Your task to perform on an android device: open app "Venmo" (install if not already installed) Image 0: 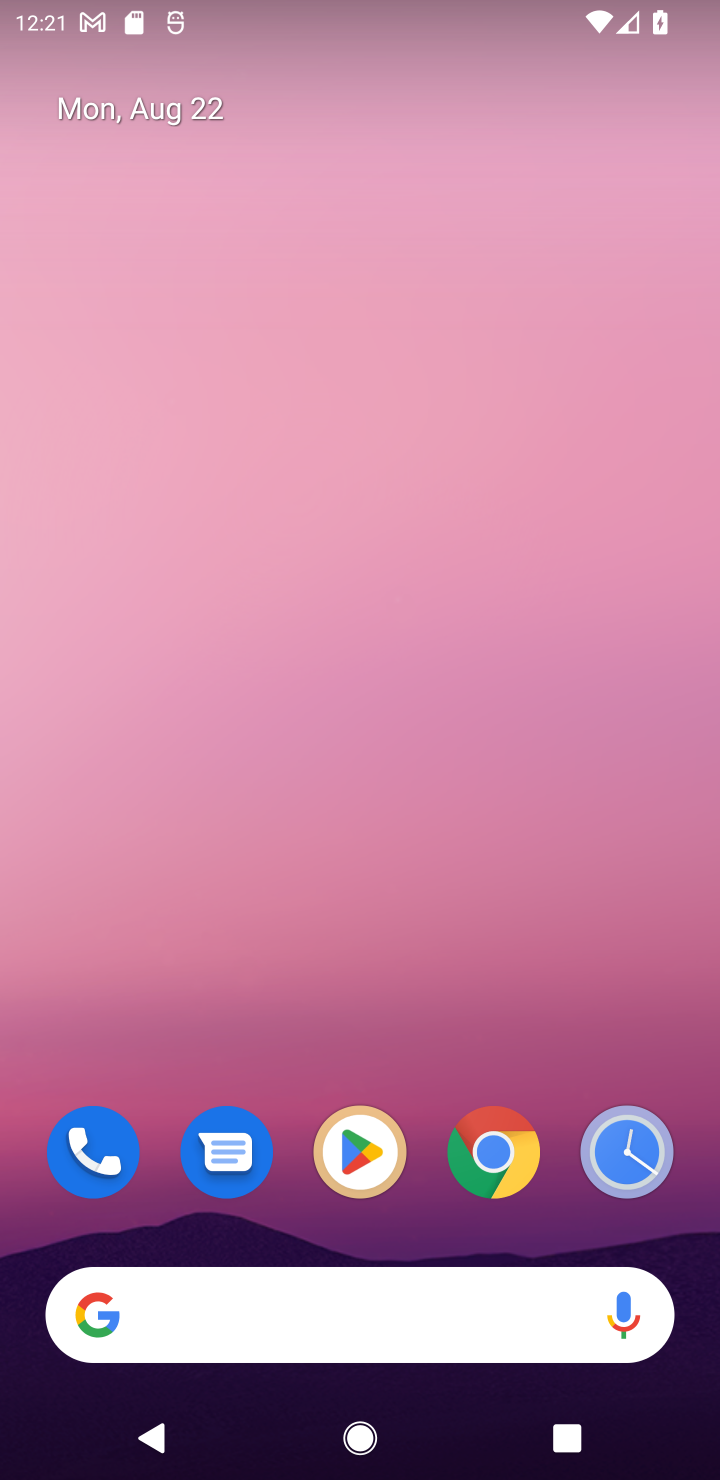
Step 0: click (369, 1143)
Your task to perform on an android device: open app "Venmo" (install if not already installed) Image 1: 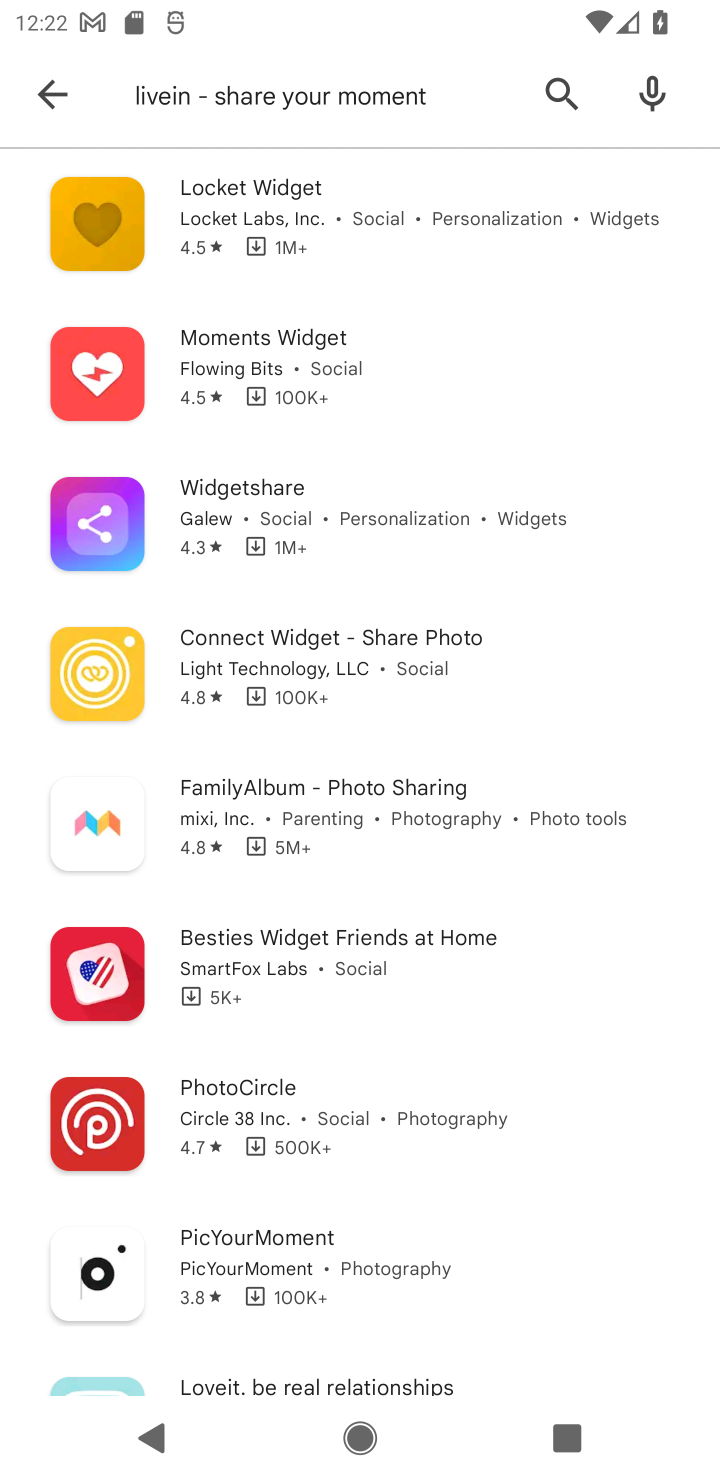
Step 1: drag from (326, 1103) to (46, 93)
Your task to perform on an android device: open app "Venmo" (install if not already installed) Image 2: 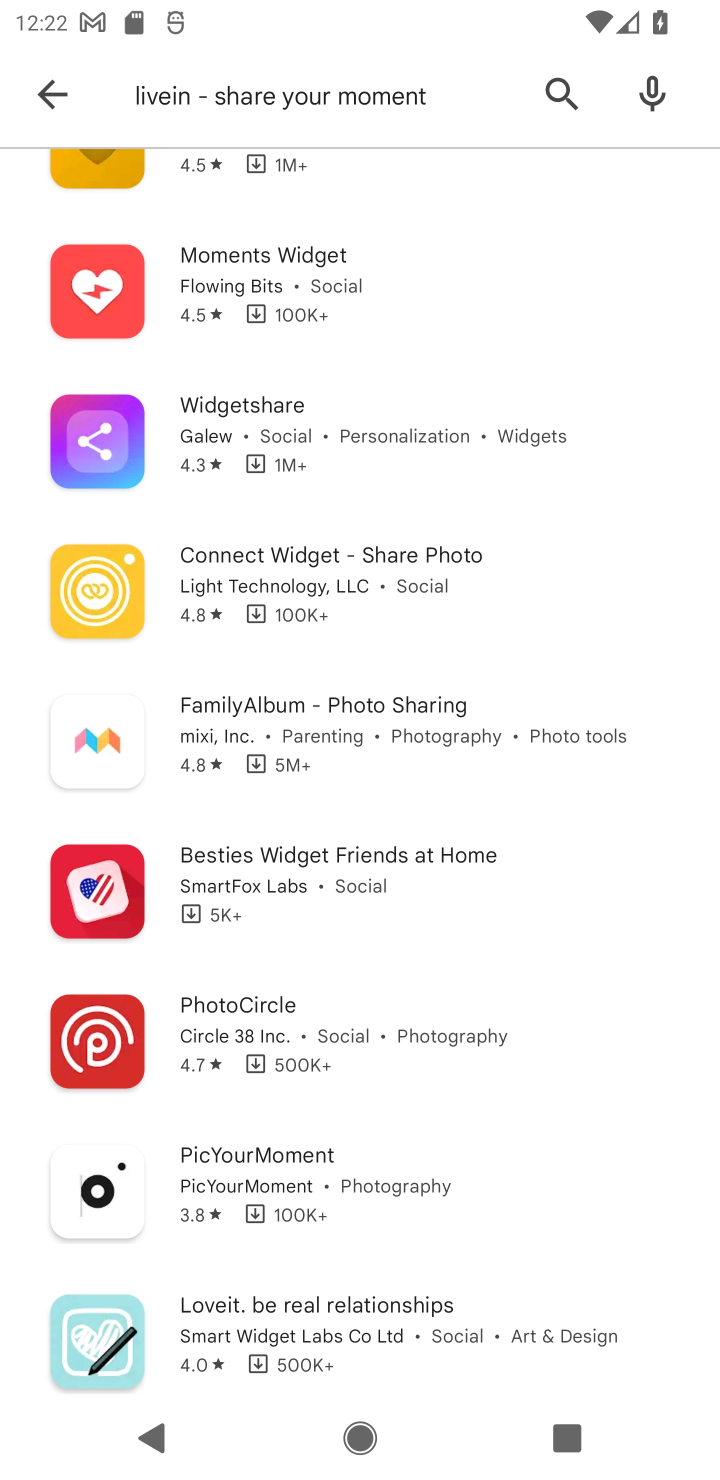
Step 2: click (46, 93)
Your task to perform on an android device: open app "Venmo" (install if not already installed) Image 3: 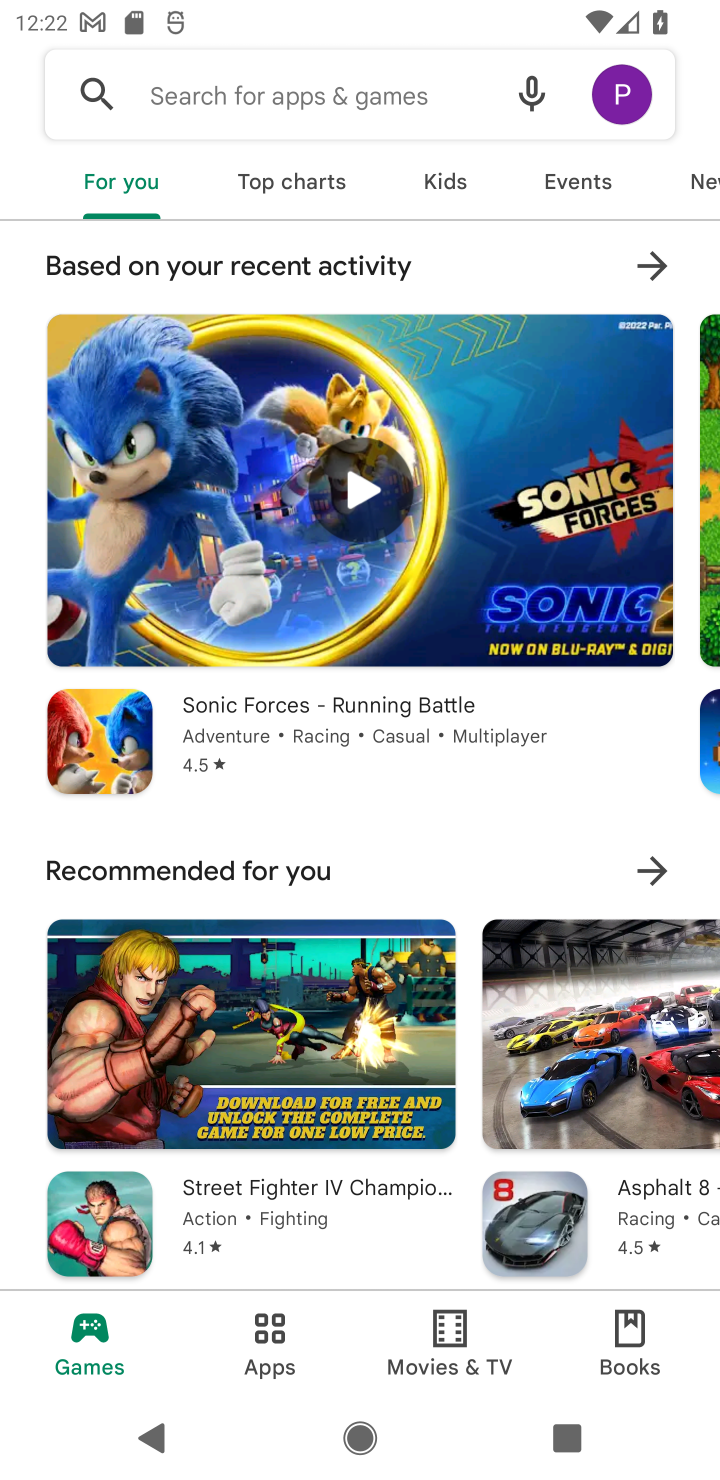
Step 3: click (243, 100)
Your task to perform on an android device: open app "Venmo" (install if not already installed) Image 4: 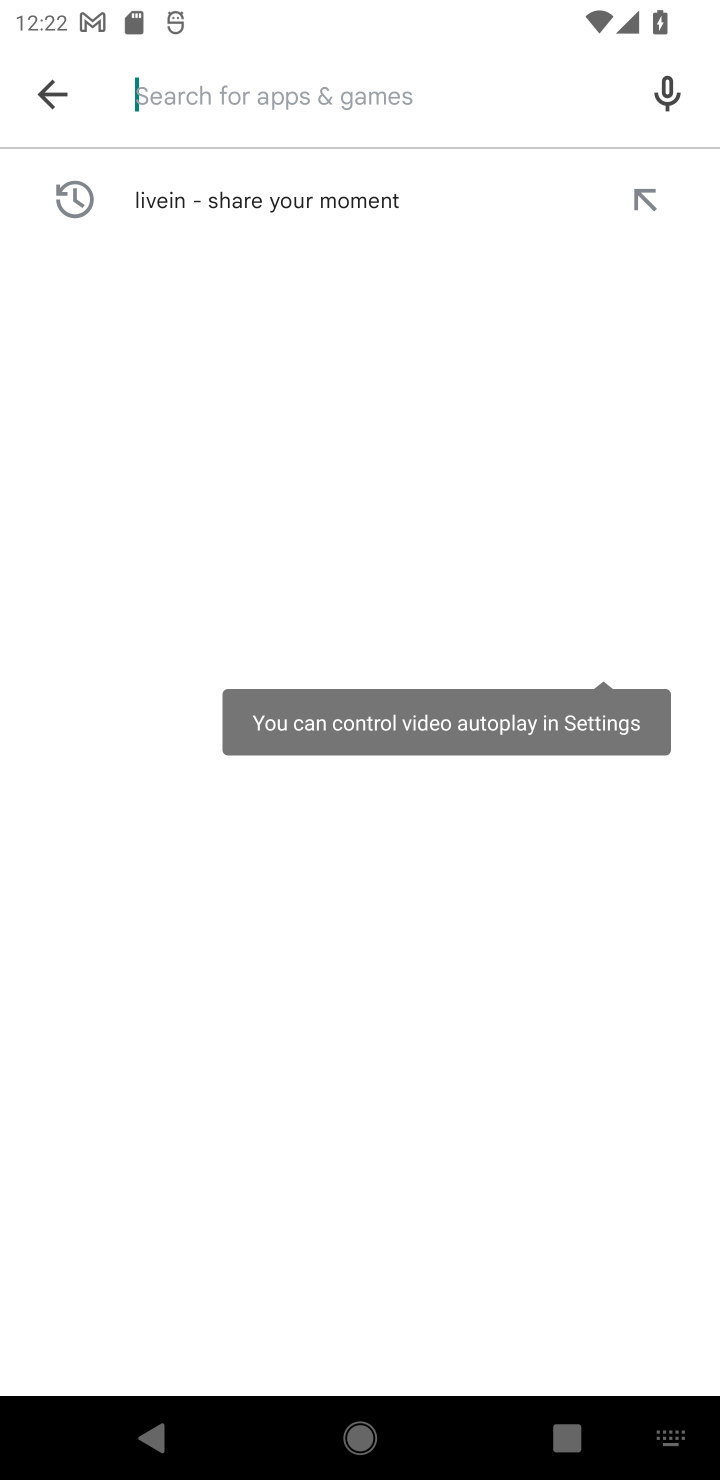
Step 4: type "Venmo"
Your task to perform on an android device: open app "Venmo" (install if not already installed) Image 5: 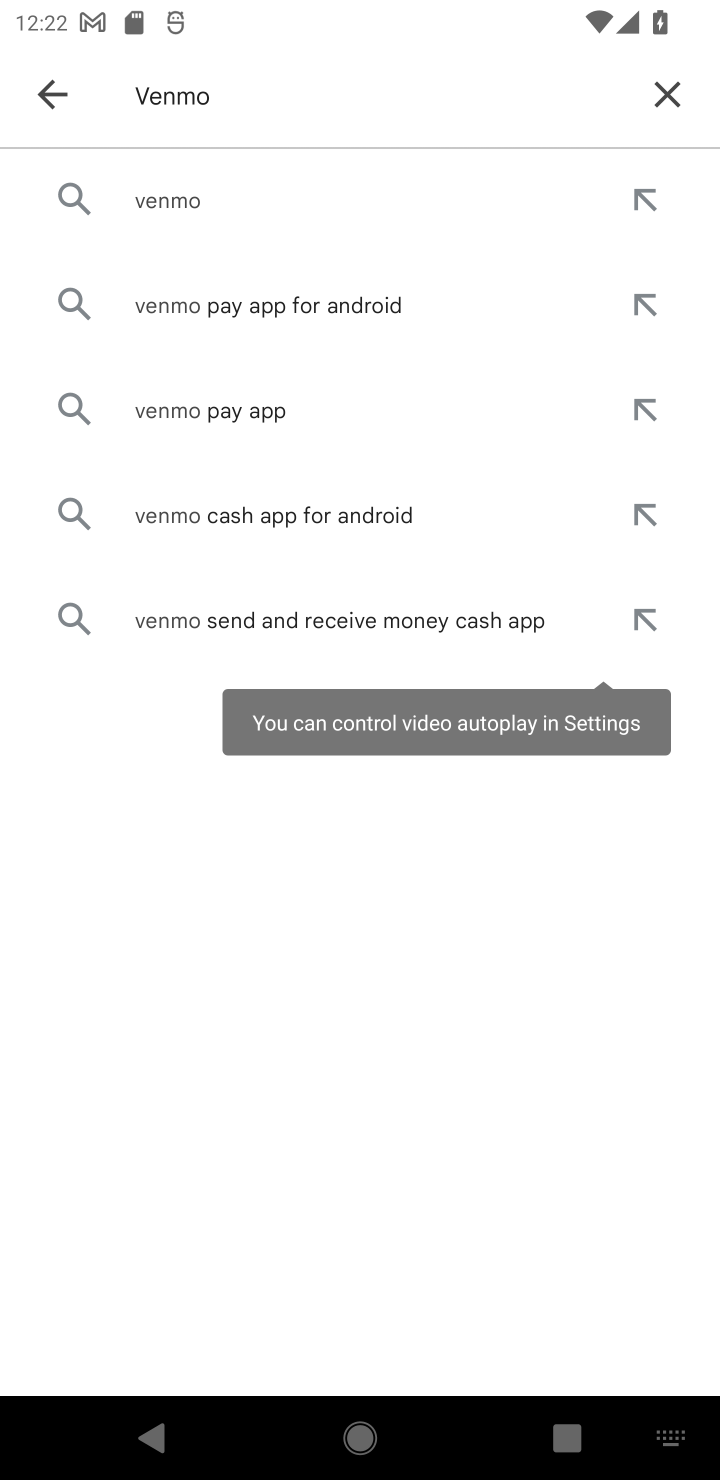
Step 5: click (157, 205)
Your task to perform on an android device: open app "Venmo" (install if not already installed) Image 6: 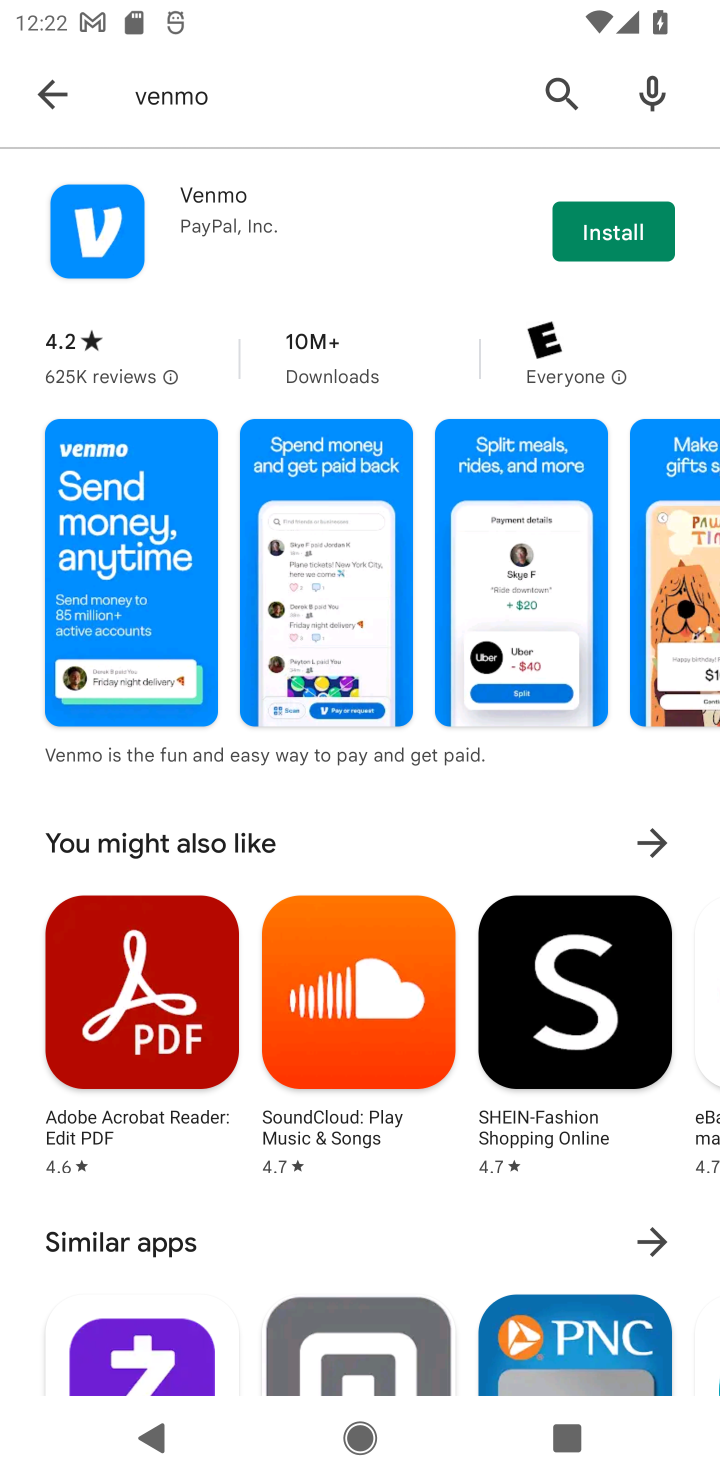
Step 6: click (613, 223)
Your task to perform on an android device: open app "Venmo" (install if not already installed) Image 7: 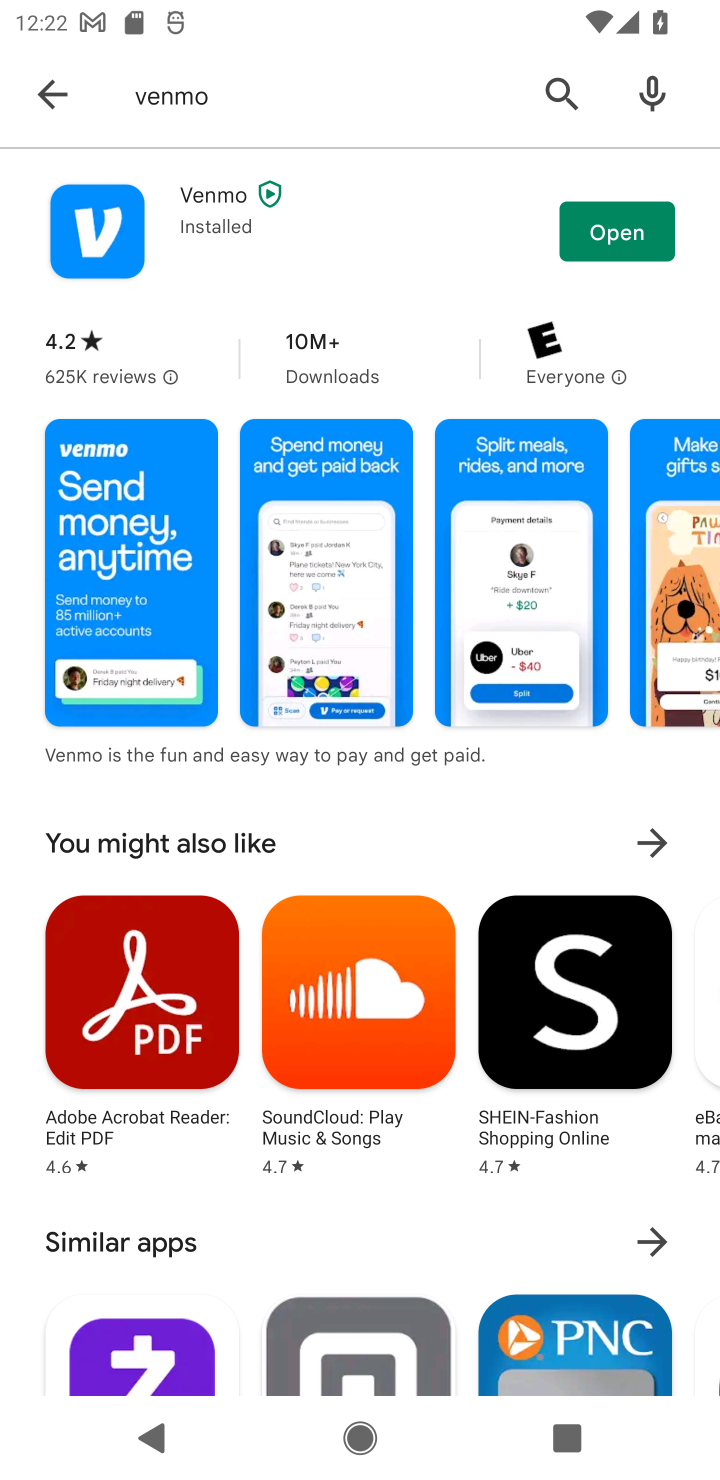
Step 7: click (613, 223)
Your task to perform on an android device: open app "Venmo" (install if not already installed) Image 8: 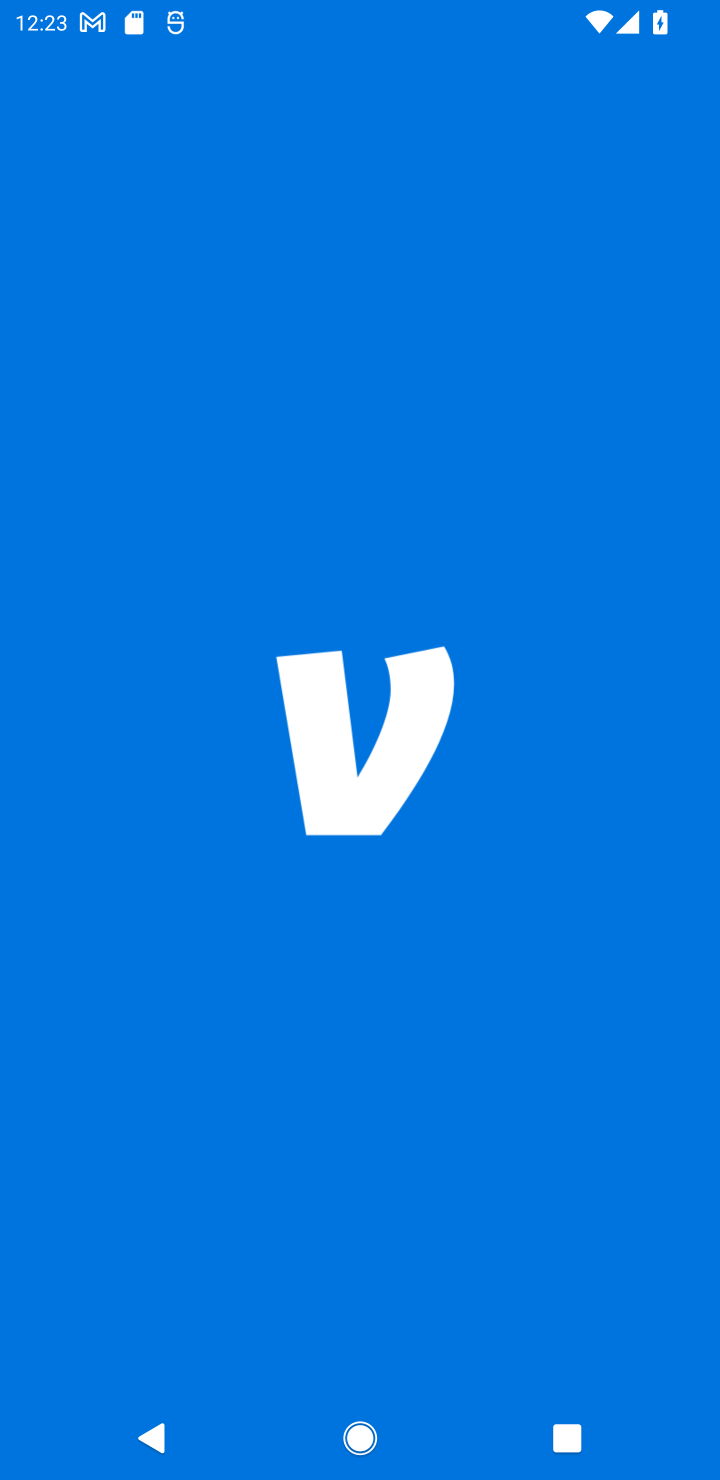
Step 8: task complete